Your task to perform on an android device: Open the Play Movies app and select the watchlist tab. Image 0: 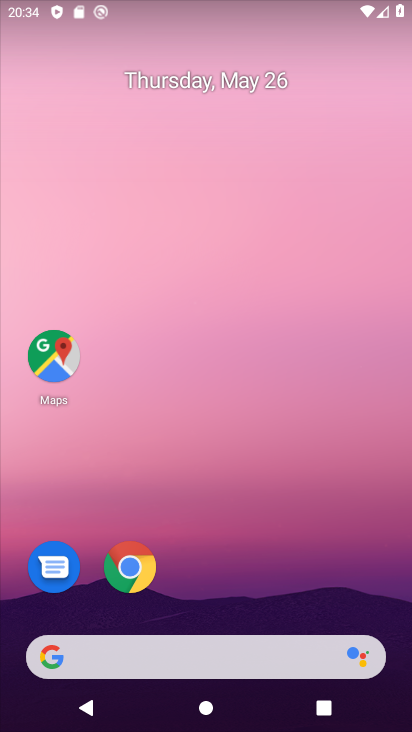
Step 0: drag from (294, 546) to (291, 147)
Your task to perform on an android device: Open the Play Movies app and select the watchlist tab. Image 1: 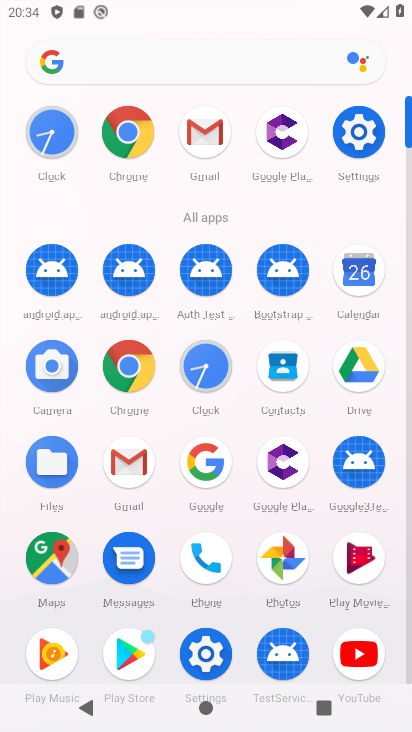
Step 1: click (349, 561)
Your task to perform on an android device: Open the Play Movies app and select the watchlist tab. Image 2: 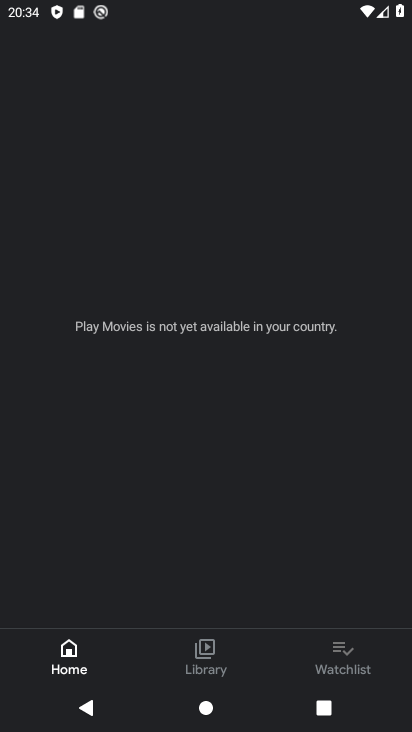
Step 2: click (334, 667)
Your task to perform on an android device: Open the Play Movies app and select the watchlist tab. Image 3: 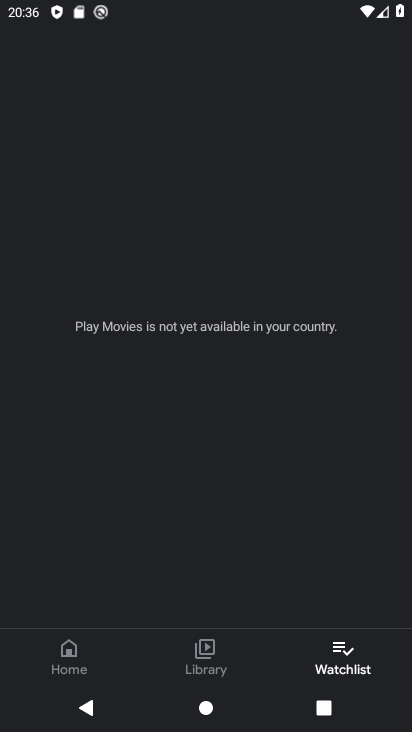
Step 3: task complete